Your task to perform on an android device: check battery use Image 0: 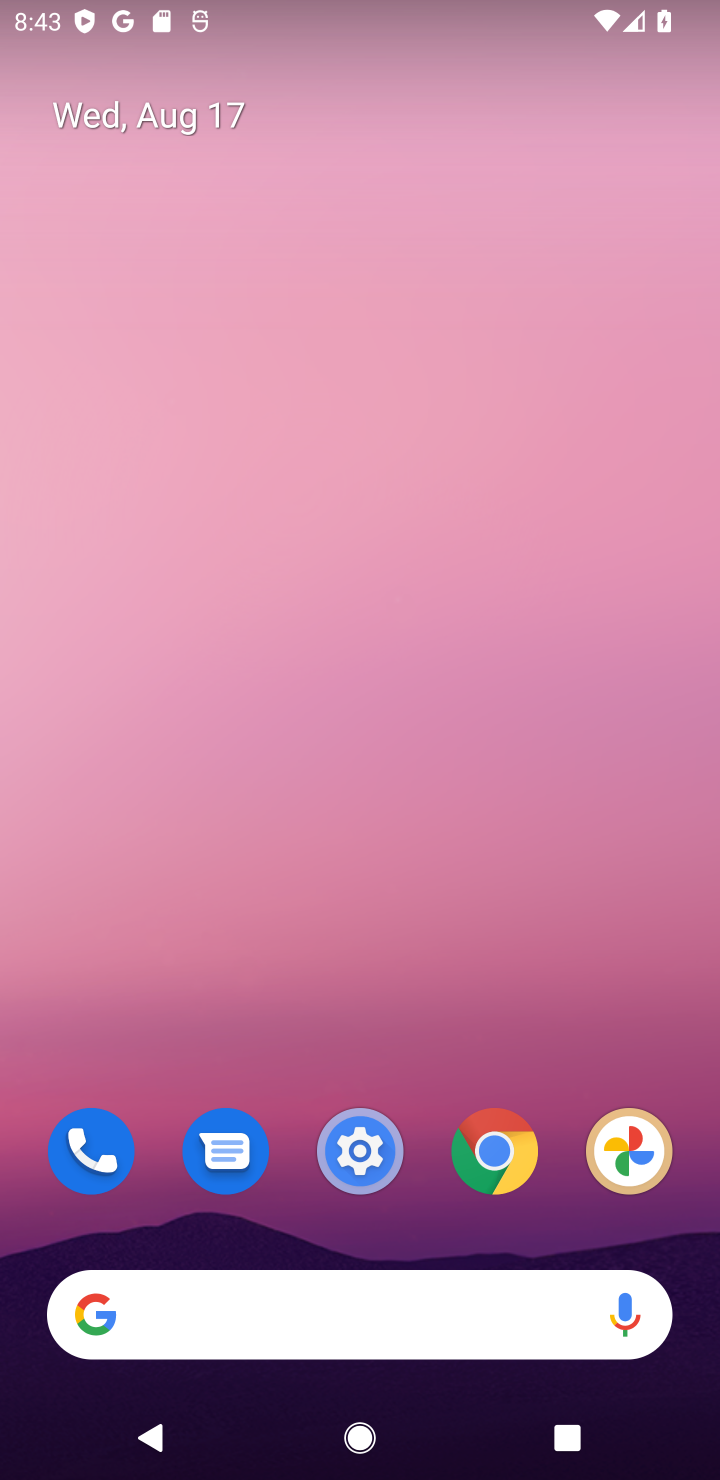
Step 0: click (353, 1154)
Your task to perform on an android device: check battery use Image 1: 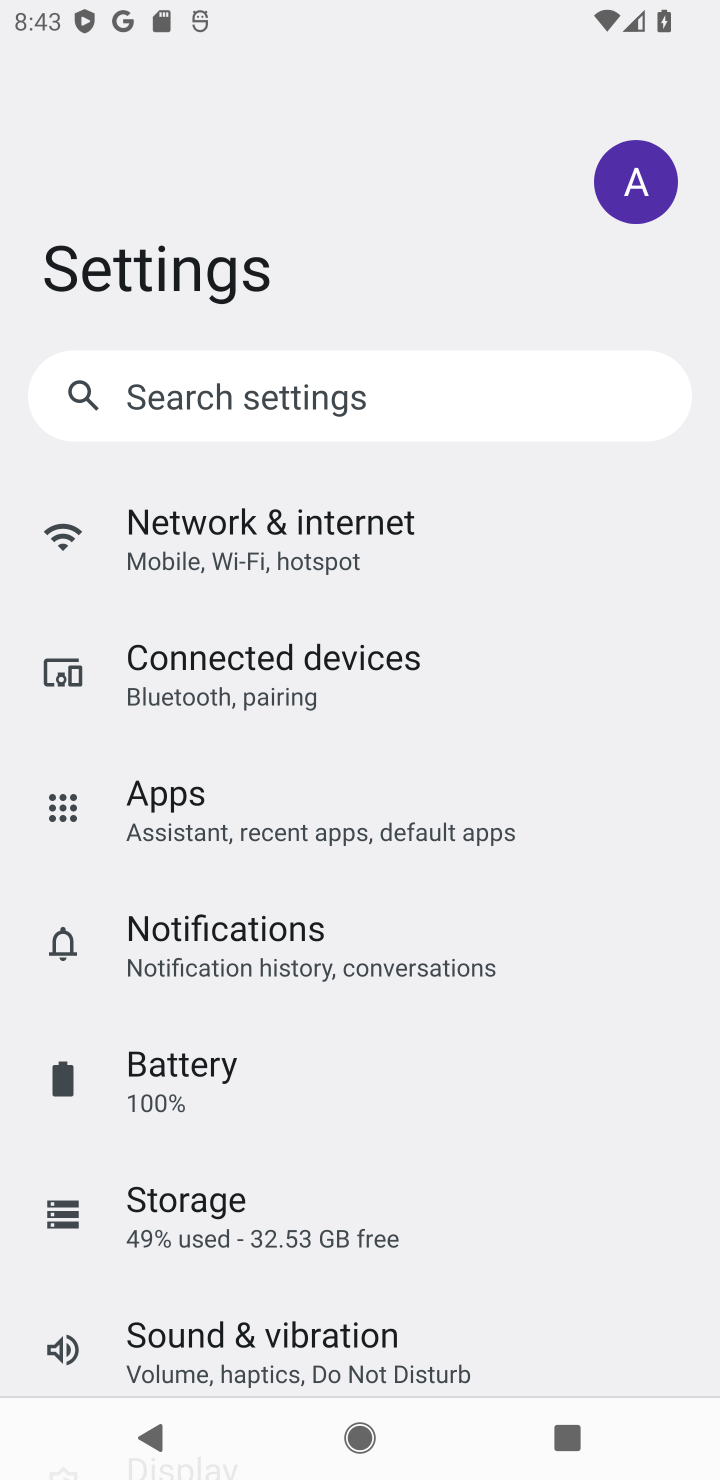
Step 1: click (119, 1098)
Your task to perform on an android device: check battery use Image 2: 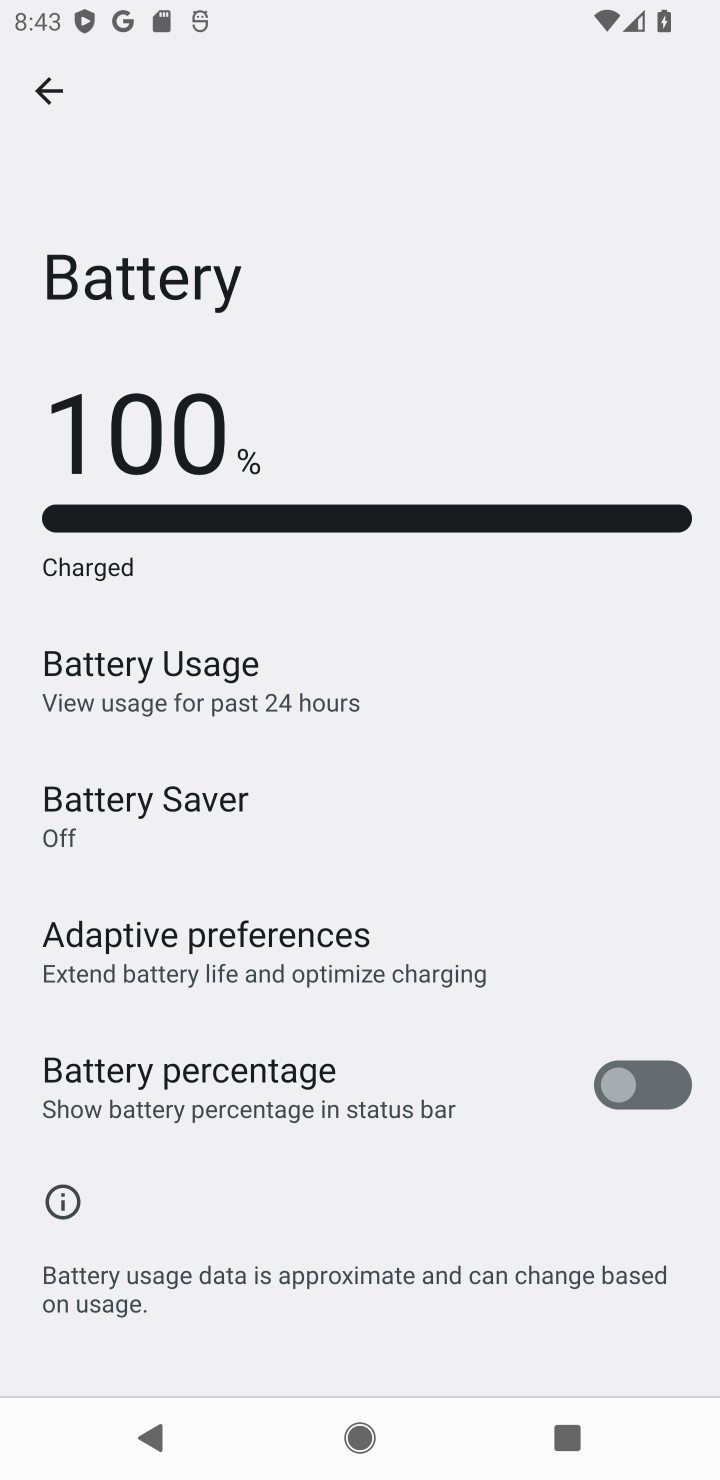
Step 2: task complete